Your task to perform on an android device: find which apps use the phone's location Image 0: 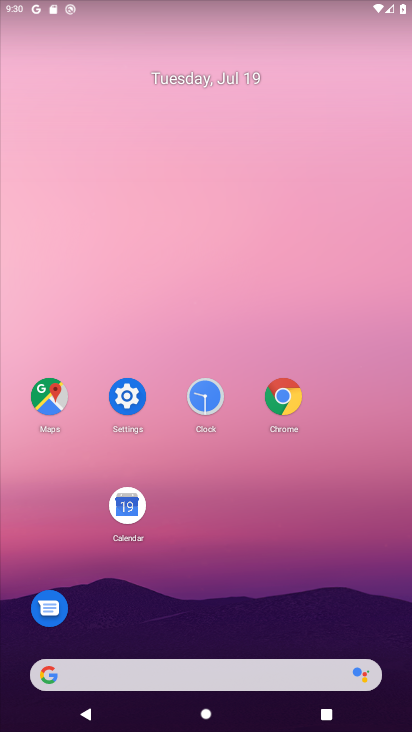
Step 0: drag from (382, 555) to (368, 120)
Your task to perform on an android device: find which apps use the phone's location Image 1: 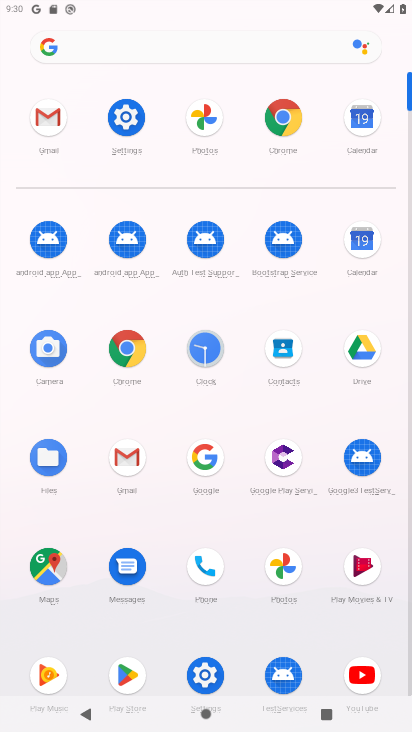
Step 1: click (128, 119)
Your task to perform on an android device: find which apps use the phone's location Image 2: 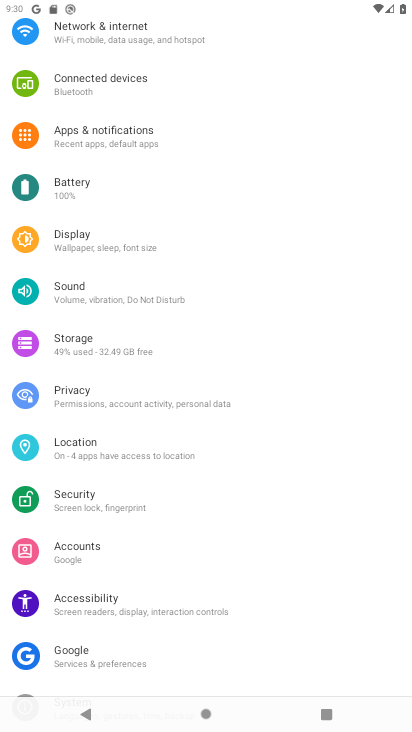
Step 2: click (78, 450)
Your task to perform on an android device: find which apps use the phone's location Image 3: 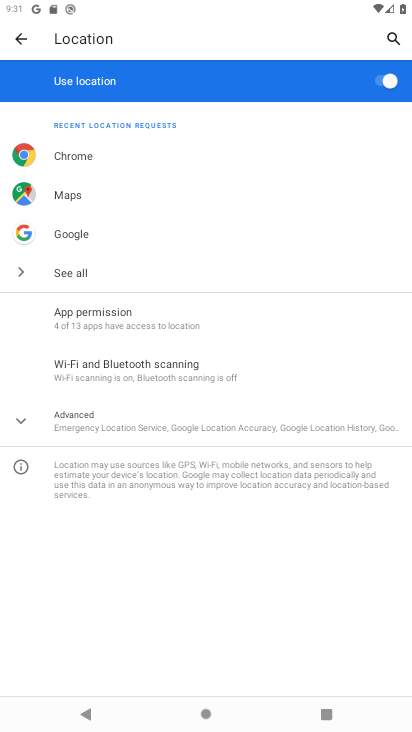
Step 3: click (54, 321)
Your task to perform on an android device: find which apps use the phone's location Image 4: 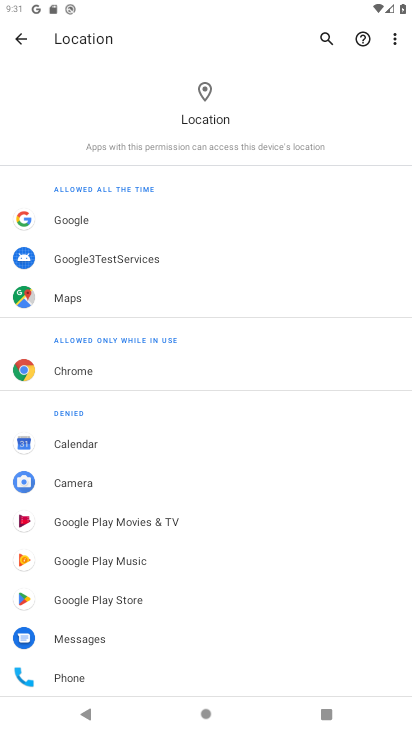
Step 4: task complete